Your task to perform on an android device: change timer sound Image 0: 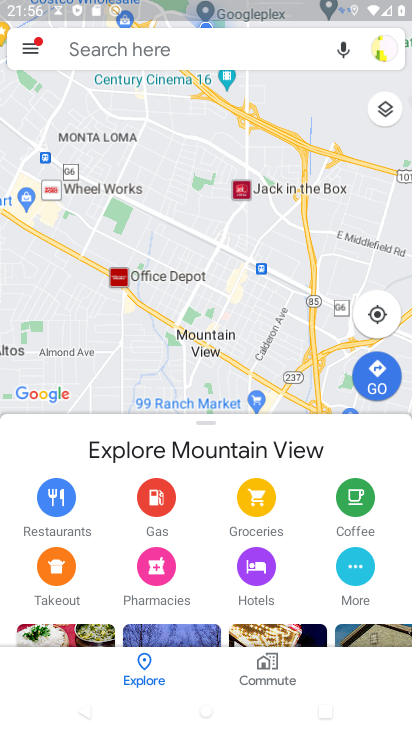
Step 0: press home button
Your task to perform on an android device: change timer sound Image 1: 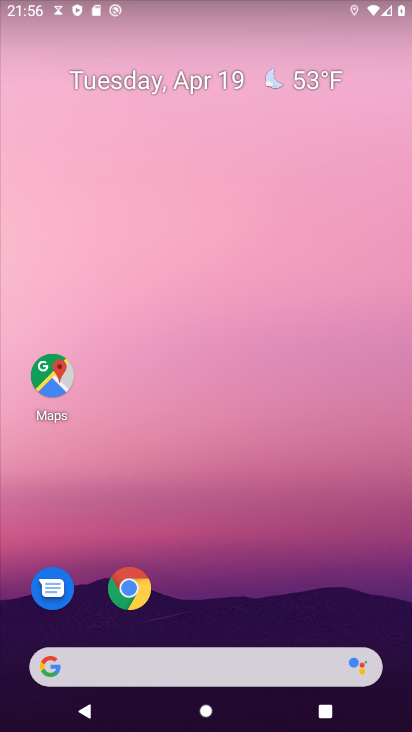
Step 1: drag from (218, 608) to (286, 97)
Your task to perform on an android device: change timer sound Image 2: 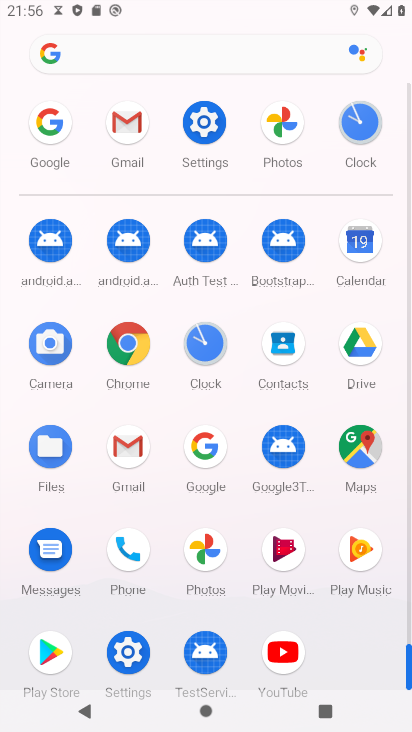
Step 2: click (363, 125)
Your task to perform on an android device: change timer sound Image 3: 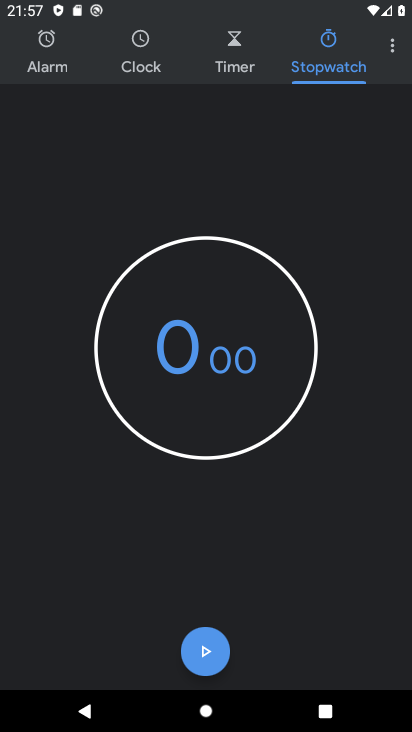
Step 3: click (397, 51)
Your task to perform on an android device: change timer sound Image 4: 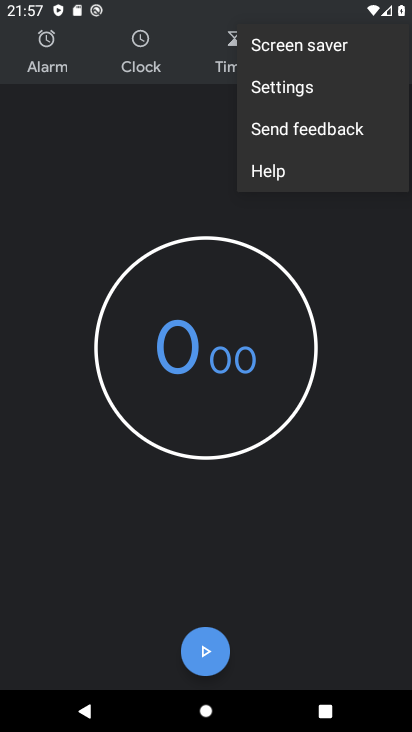
Step 4: click (312, 85)
Your task to perform on an android device: change timer sound Image 5: 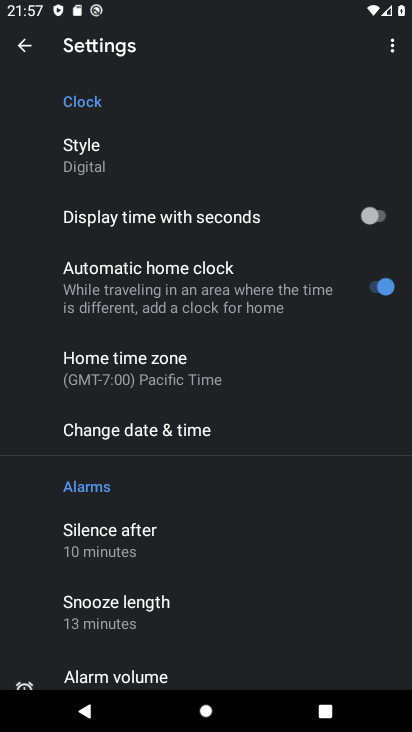
Step 5: drag from (199, 549) to (199, 402)
Your task to perform on an android device: change timer sound Image 6: 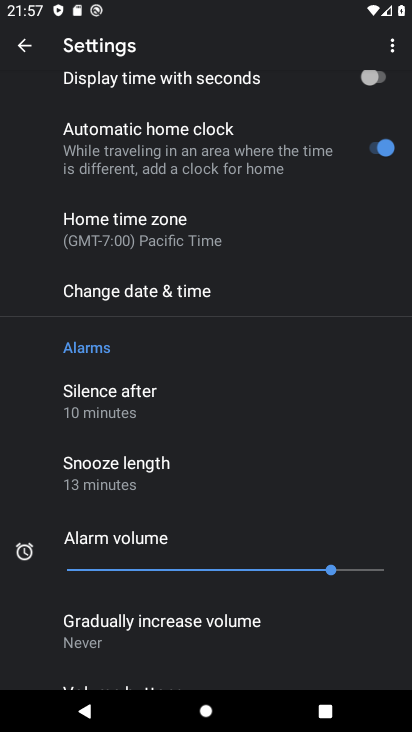
Step 6: drag from (193, 474) to (204, 402)
Your task to perform on an android device: change timer sound Image 7: 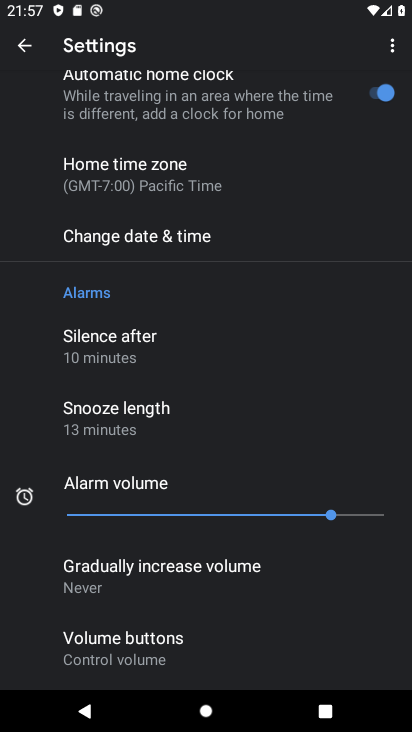
Step 7: drag from (157, 510) to (179, 442)
Your task to perform on an android device: change timer sound Image 8: 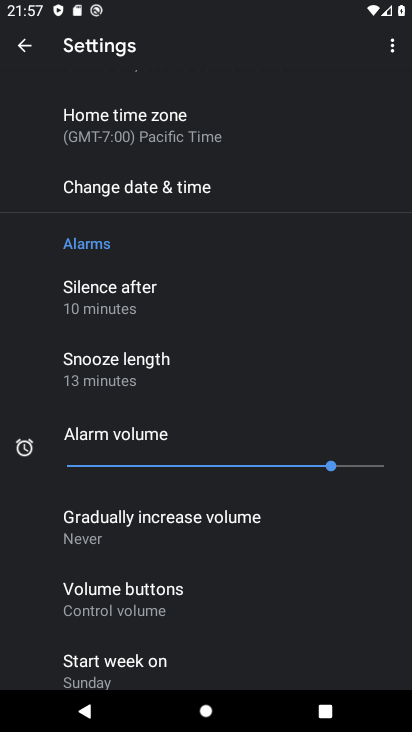
Step 8: drag from (152, 535) to (174, 450)
Your task to perform on an android device: change timer sound Image 9: 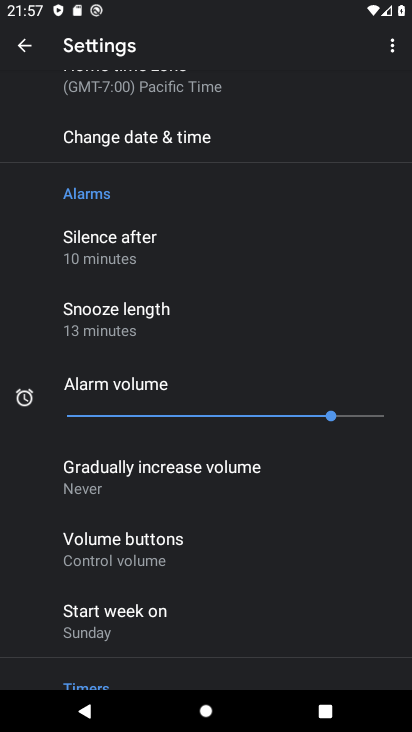
Step 9: drag from (164, 571) to (181, 430)
Your task to perform on an android device: change timer sound Image 10: 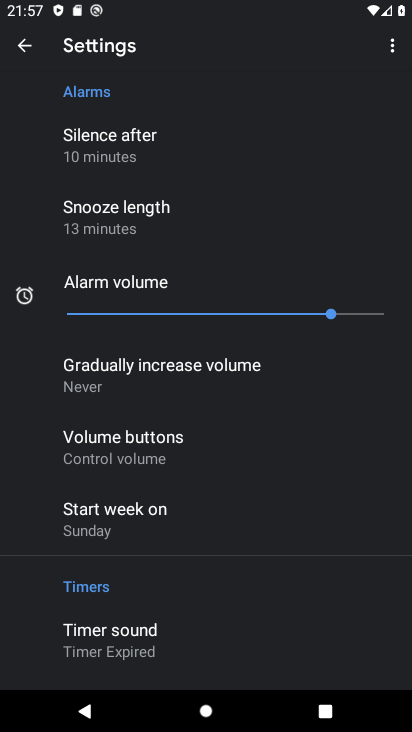
Step 10: drag from (146, 574) to (203, 416)
Your task to perform on an android device: change timer sound Image 11: 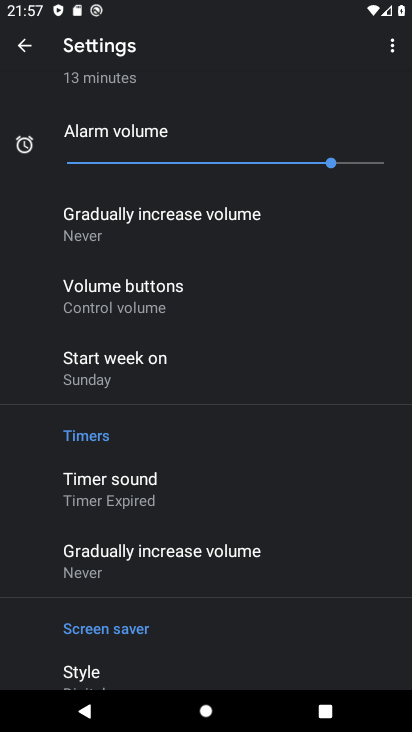
Step 11: click (142, 506)
Your task to perform on an android device: change timer sound Image 12: 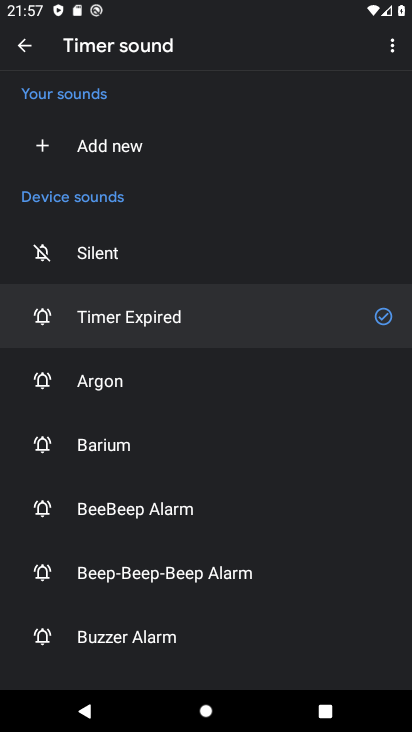
Step 12: click (122, 443)
Your task to perform on an android device: change timer sound Image 13: 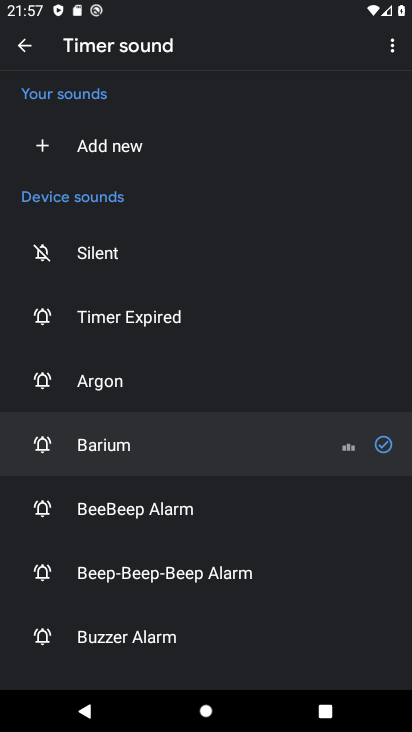
Step 13: task complete